Your task to perform on an android device: Open Maps and search for coffee Image 0: 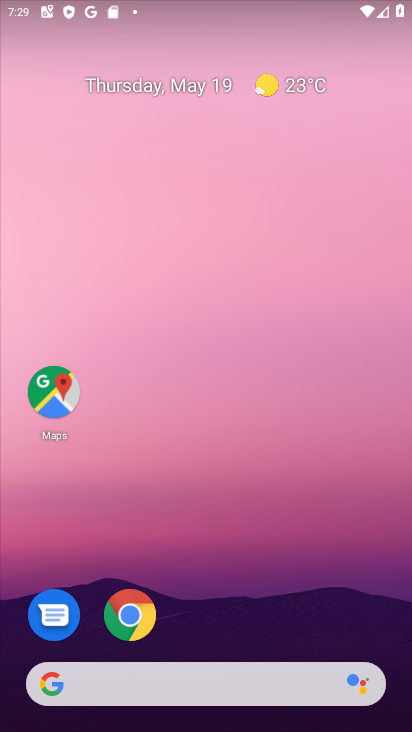
Step 0: drag from (390, 628) to (293, 100)
Your task to perform on an android device: Open Maps and search for coffee Image 1: 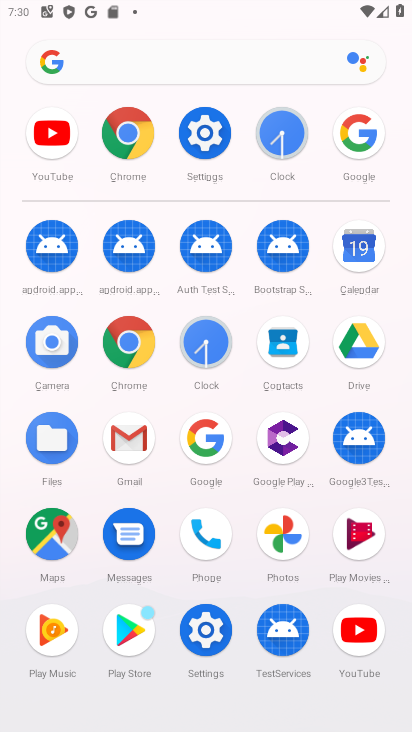
Step 1: click (75, 537)
Your task to perform on an android device: Open Maps and search for coffee Image 2: 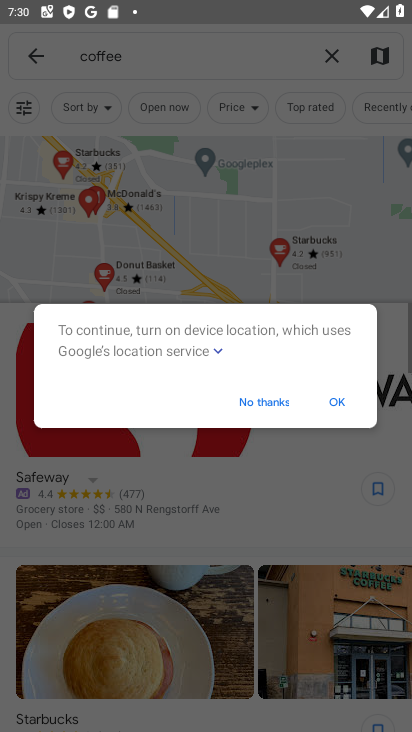
Step 2: click (272, 408)
Your task to perform on an android device: Open Maps and search for coffee Image 3: 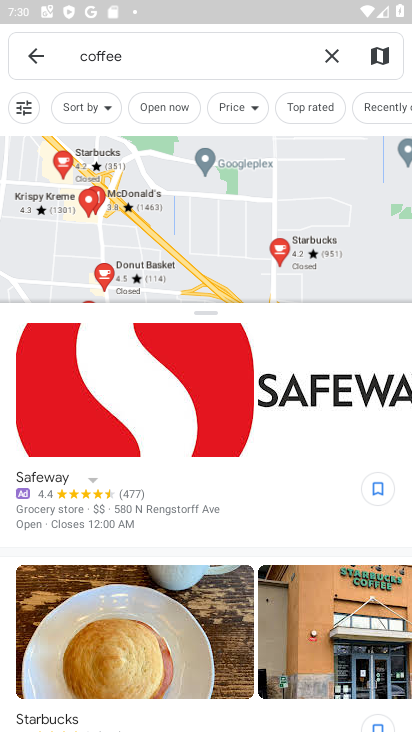
Step 3: task complete